Your task to perform on an android device: add a contact in the contacts app Image 0: 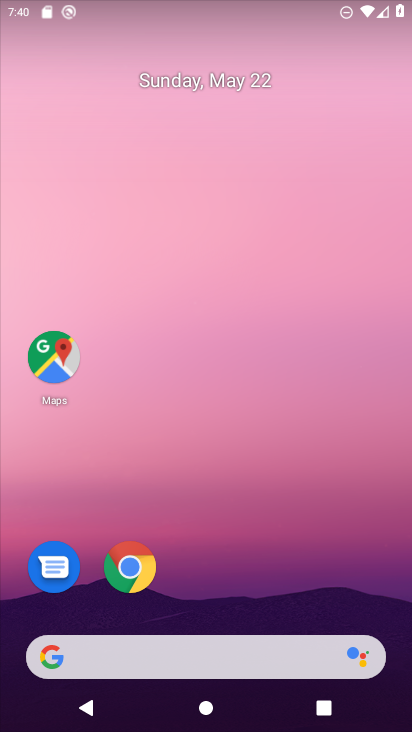
Step 0: drag from (282, 408) to (345, 110)
Your task to perform on an android device: add a contact in the contacts app Image 1: 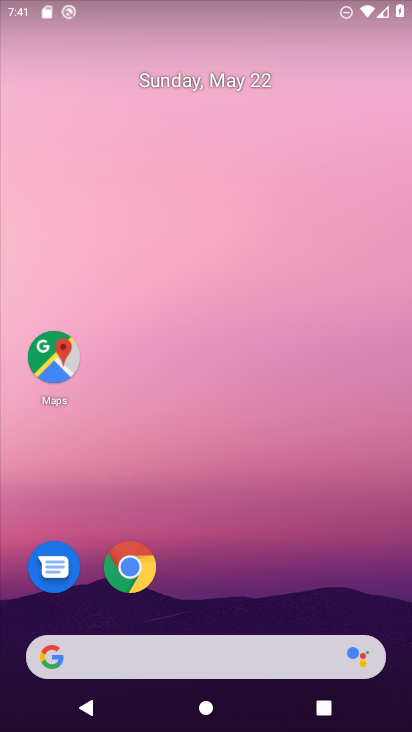
Step 1: drag from (281, 438) to (343, 88)
Your task to perform on an android device: add a contact in the contacts app Image 2: 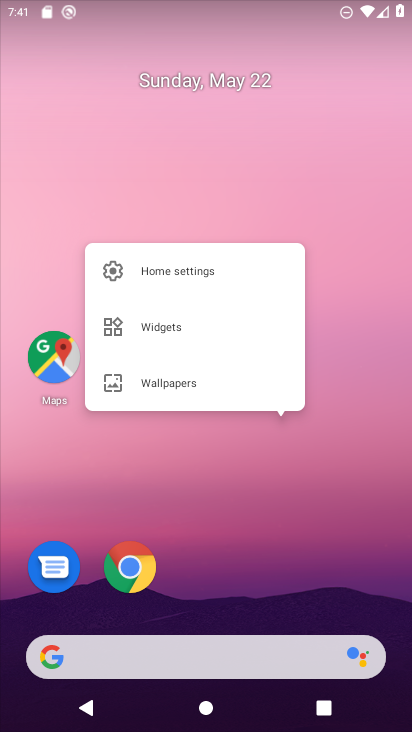
Step 2: click (304, 540)
Your task to perform on an android device: add a contact in the contacts app Image 3: 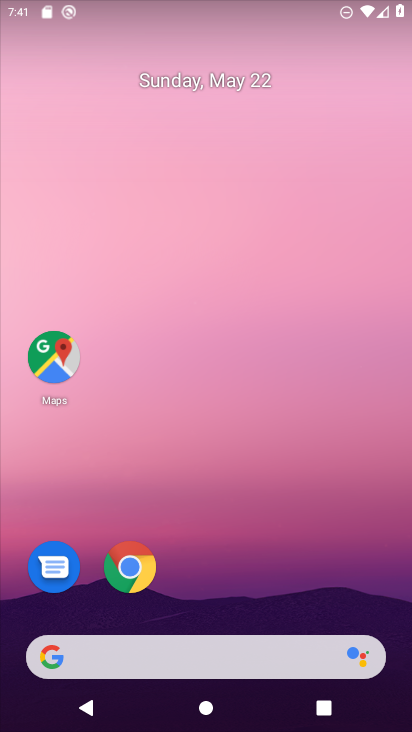
Step 3: drag from (291, 124) to (307, 40)
Your task to perform on an android device: add a contact in the contacts app Image 4: 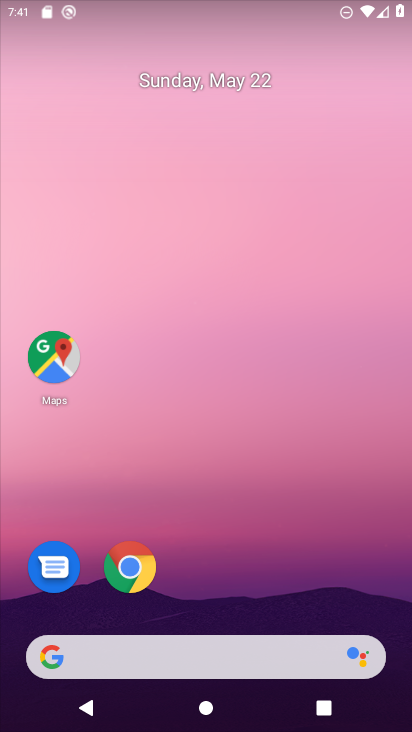
Step 4: drag from (227, 531) to (311, 73)
Your task to perform on an android device: add a contact in the contacts app Image 5: 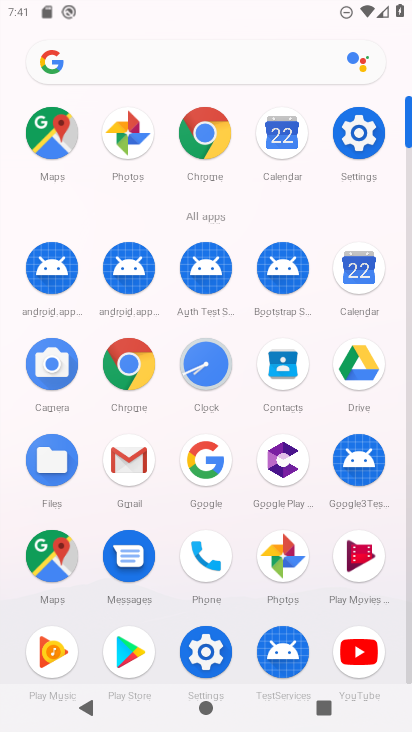
Step 5: click (271, 361)
Your task to perform on an android device: add a contact in the contacts app Image 6: 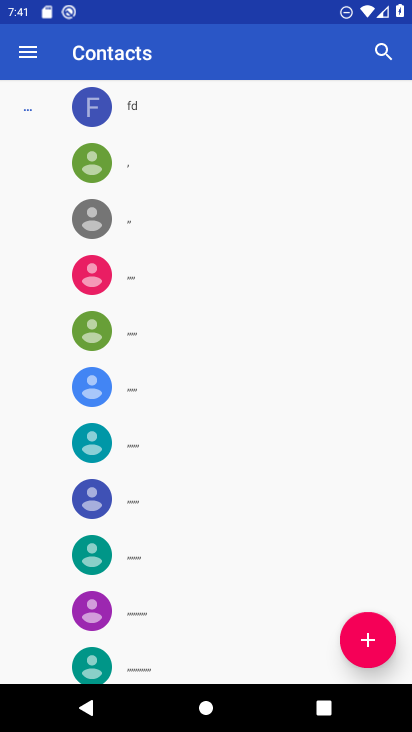
Step 6: click (375, 636)
Your task to perform on an android device: add a contact in the contacts app Image 7: 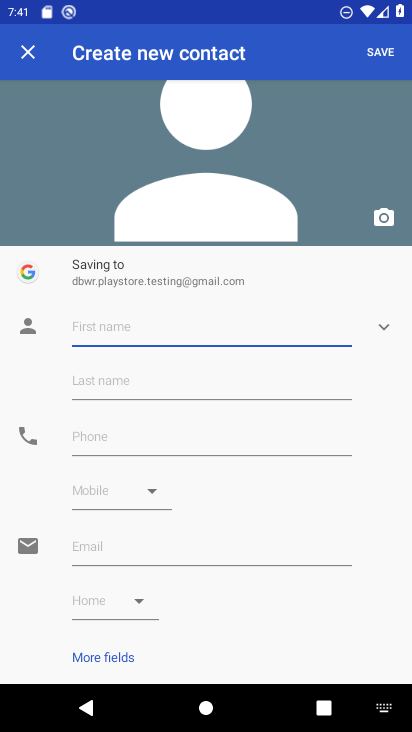
Step 7: type "hhg"
Your task to perform on an android device: add a contact in the contacts app Image 8: 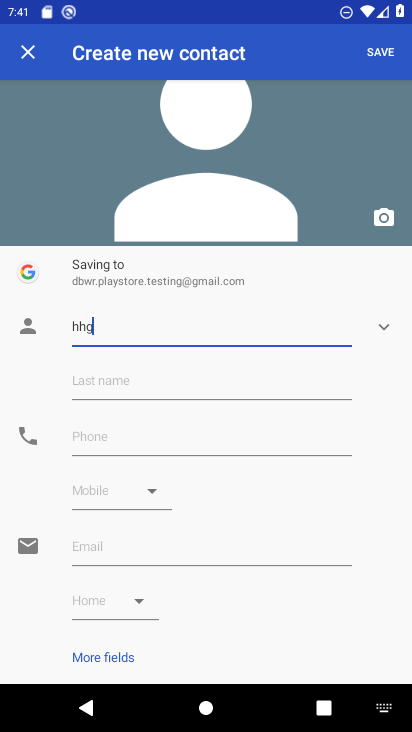
Step 8: click (97, 437)
Your task to perform on an android device: add a contact in the contacts app Image 9: 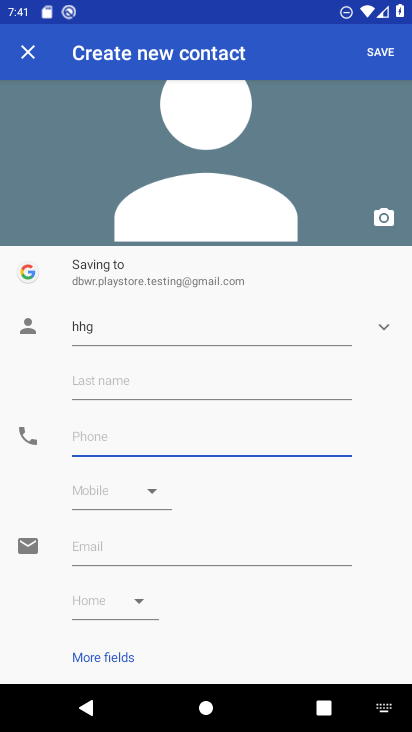
Step 9: type "67656"
Your task to perform on an android device: add a contact in the contacts app Image 10: 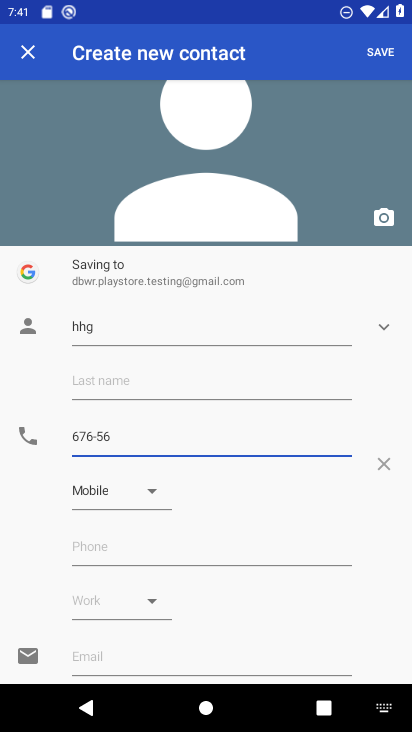
Step 10: click (384, 48)
Your task to perform on an android device: add a contact in the contacts app Image 11: 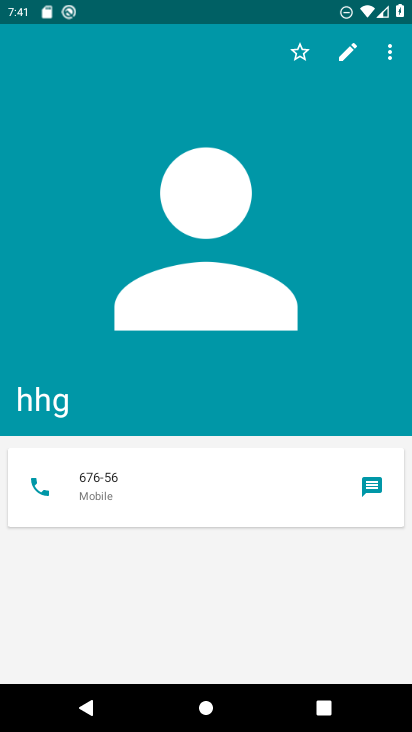
Step 11: task complete